Your task to perform on an android device: What's the weather today? Image 0: 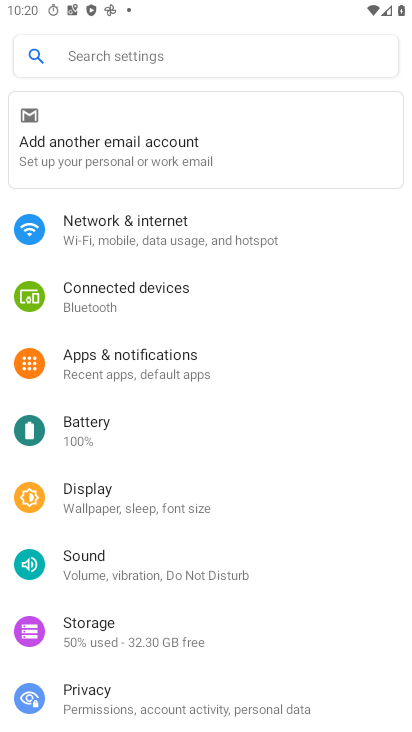
Step 0: press home button
Your task to perform on an android device: What's the weather today? Image 1: 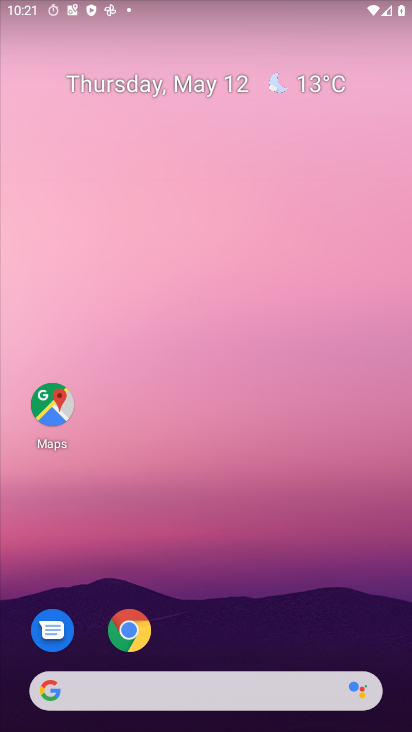
Step 1: click (320, 79)
Your task to perform on an android device: What's the weather today? Image 2: 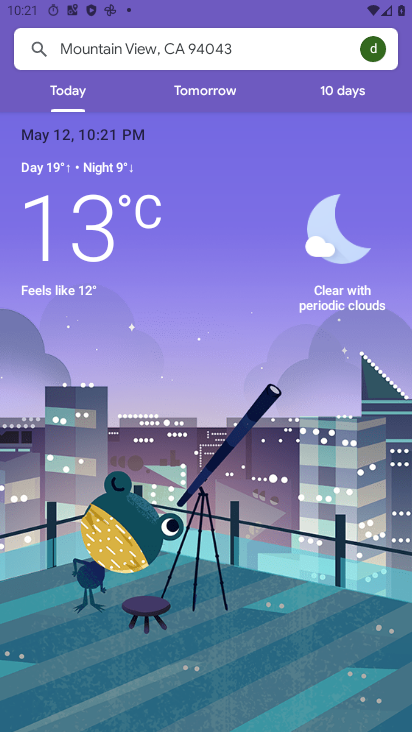
Step 2: task complete